Your task to perform on an android device: turn on location history Image 0: 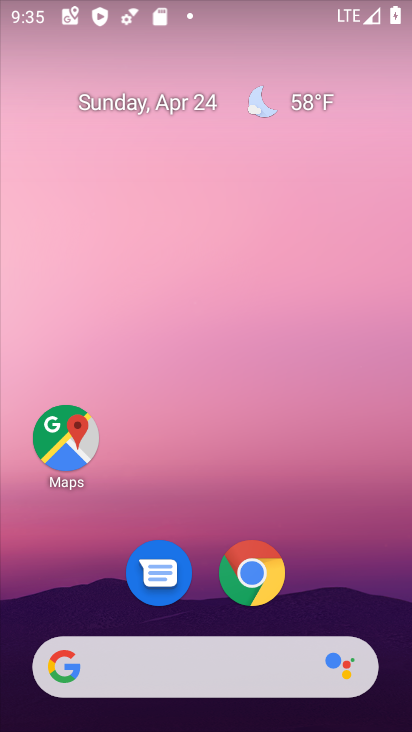
Step 0: drag from (377, 577) to (376, 70)
Your task to perform on an android device: turn on location history Image 1: 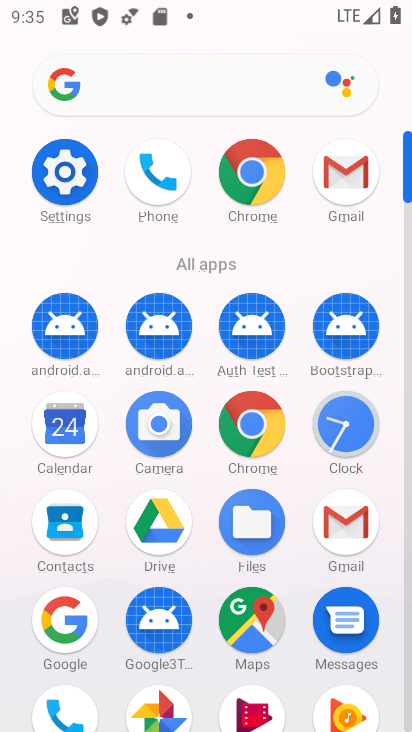
Step 1: click (70, 158)
Your task to perform on an android device: turn on location history Image 2: 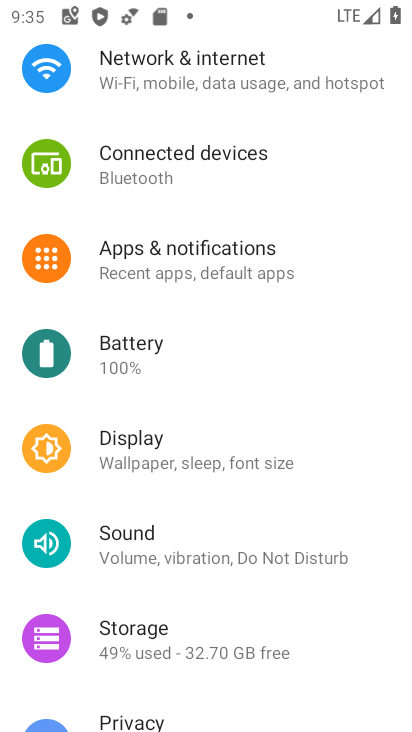
Step 2: drag from (265, 614) to (301, 113)
Your task to perform on an android device: turn on location history Image 3: 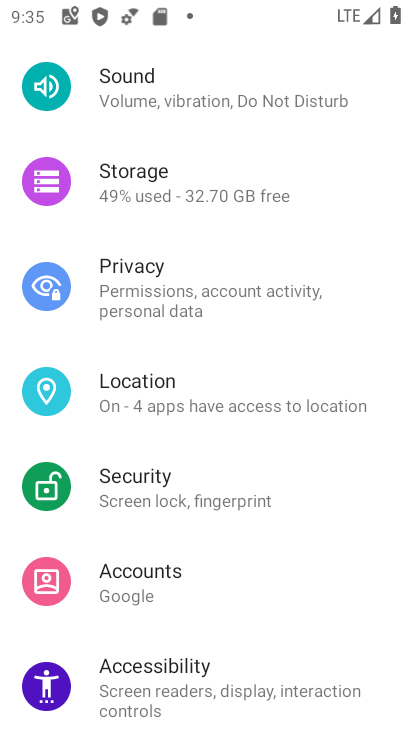
Step 3: drag from (192, 531) to (265, 151)
Your task to perform on an android device: turn on location history Image 4: 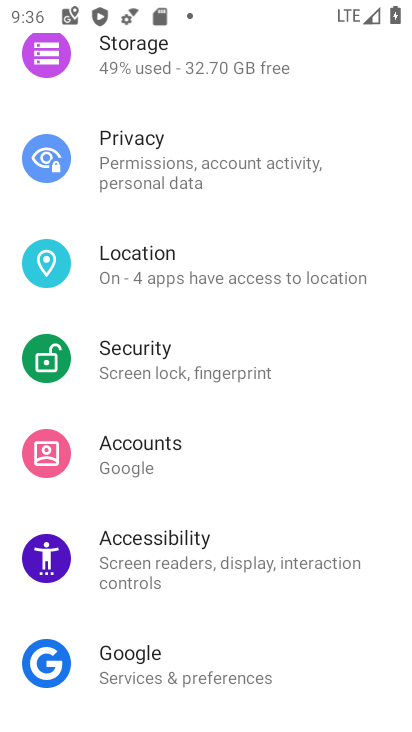
Step 4: click (195, 288)
Your task to perform on an android device: turn on location history Image 5: 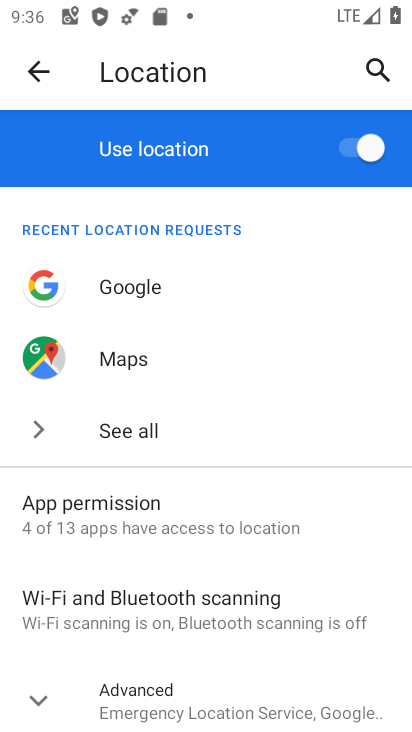
Step 5: drag from (234, 576) to (224, 157)
Your task to perform on an android device: turn on location history Image 6: 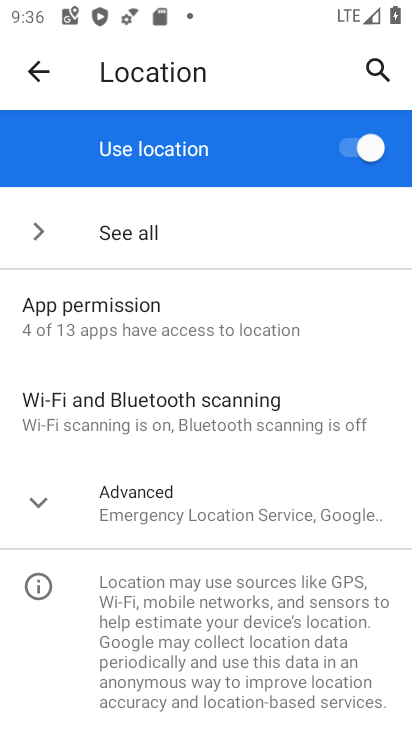
Step 6: click (157, 503)
Your task to perform on an android device: turn on location history Image 7: 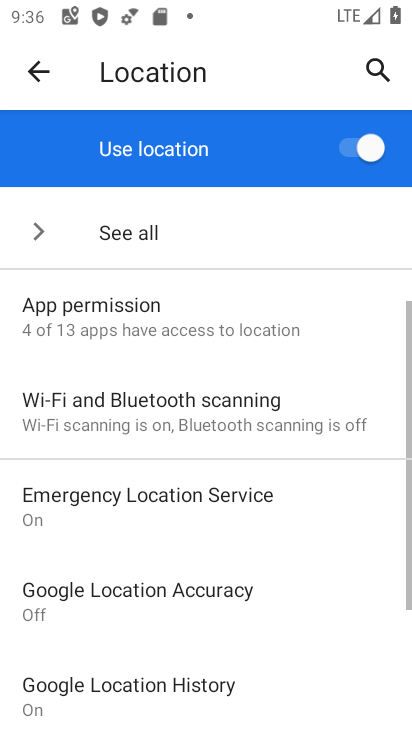
Step 7: drag from (351, 614) to (400, 271)
Your task to perform on an android device: turn on location history Image 8: 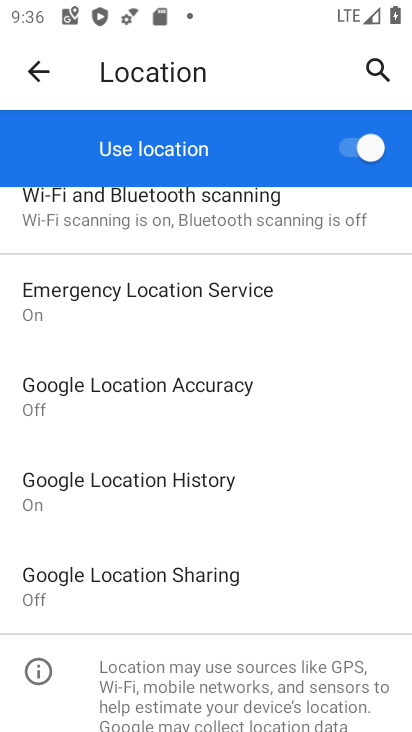
Step 8: click (130, 476)
Your task to perform on an android device: turn on location history Image 9: 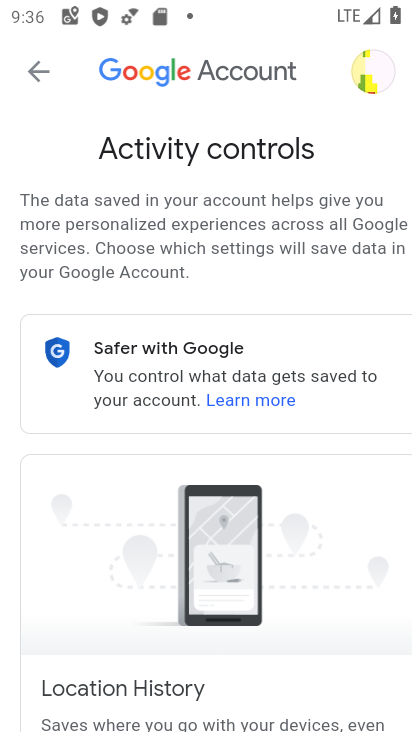
Step 9: drag from (317, 513) to (341, 118)
Your task to perform on an android device: turn on location history Image 10: 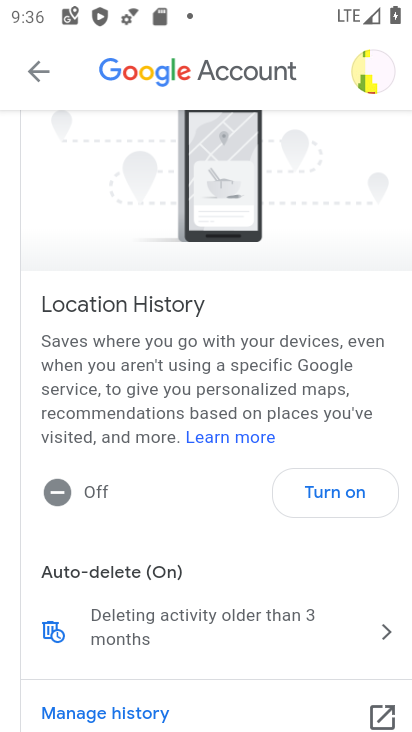
Step 10: click (352, 480)
Your task to perform on an android device: turn on location history Image 11: 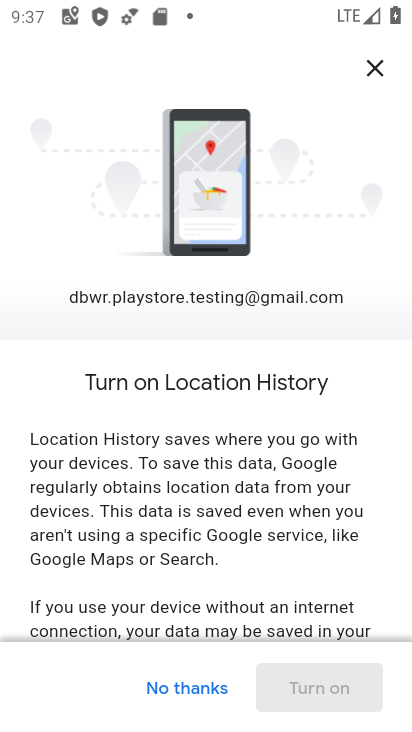
Step 11: drag from (293, 588) to (291, 217)
Your task to perform on an android device: turn on location history Image 12: 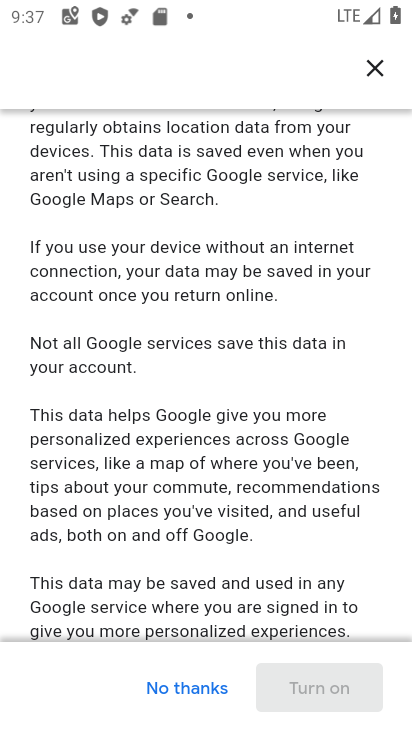
Step 12: drag from (220, 613) to (260, 98)
Your task to perform on an android device: turn on location history Image 13: 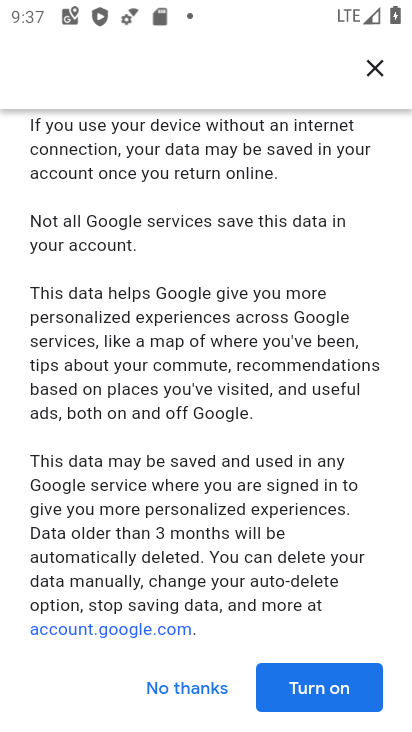
Step 13: click (332, 693)
Your task to perform on an android device: turn on location history Image 14: 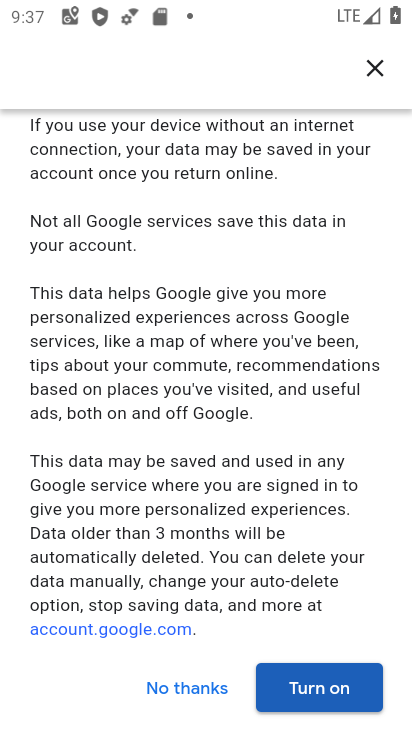
Step 14: click (331, 690)
Your task to perform on an android device: turn on location history Image 15: 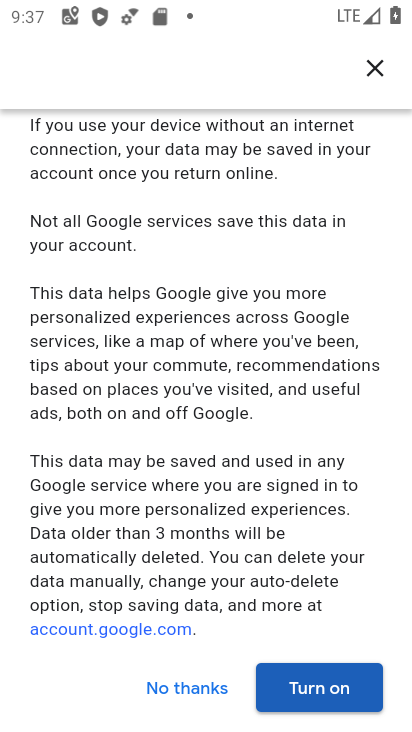
Step 15: click (329, 687)
Your task to perform on an android device: turn on location history Image 16: 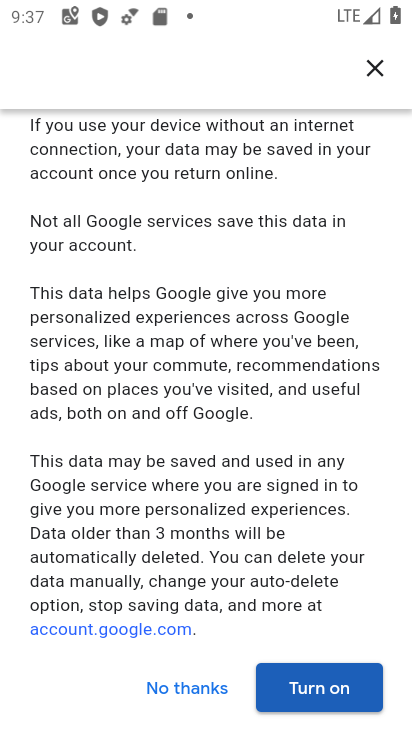
Step 16: drag from (303, 602) to (284, 298)
Your task to perform on an android device: turn on location history Image 17: 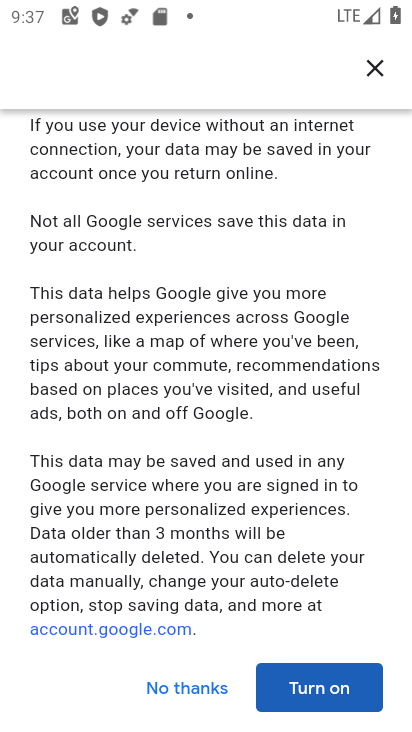
Step 17: click (281, 690)
Your task to perform on an android device: turn on location history Image 18: 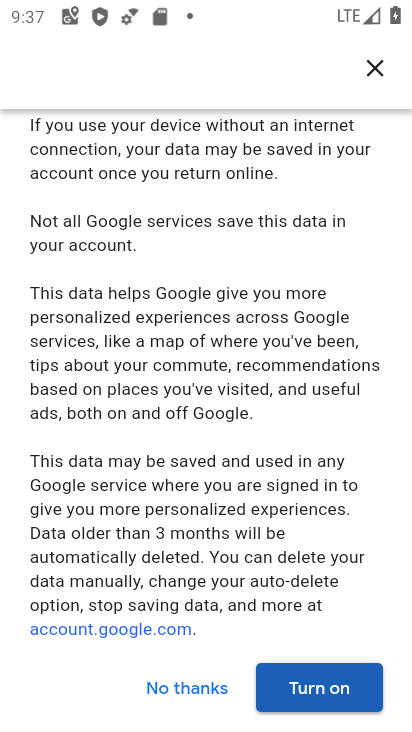
Step 18: click (293, 691)
Your task to perform on an android device: turn on location history Image 19: 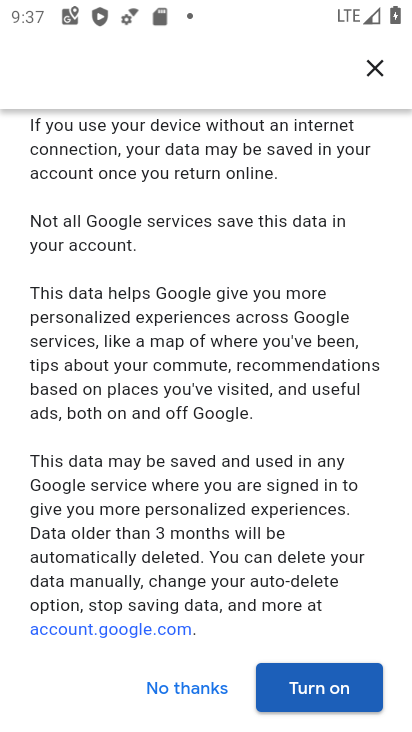
Step 19: click (293, 688)
Your task to perform on an android device: turn on location history Image 20: 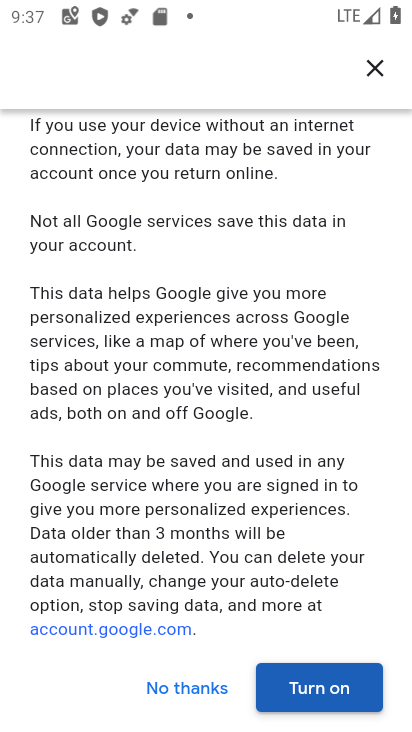
Step 20: click (341, 682)
Your task to perform on an android device: turn on location history Image 21: 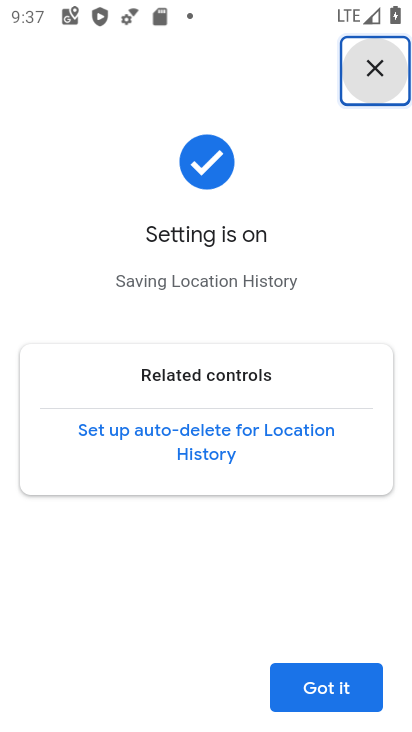
Step 21: task complete